Your task to perform on an android device: change the clock display to analog Image 0: 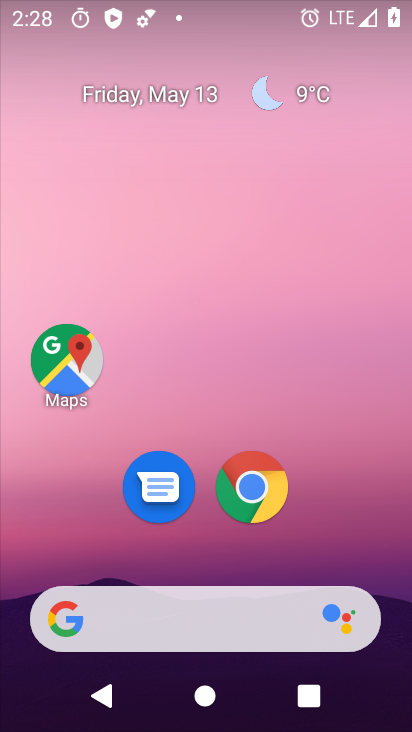
Step 0: drag from (218, 564) to (218, 154)
Your task to perform on an android device: change the clock display to analog Image 1: 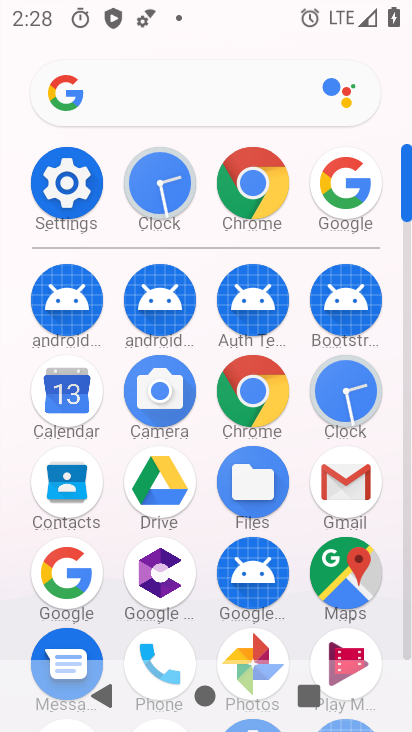
Step 1: click (349, 392)
Your task to perform on an android device: change the clock display to analog Image 2: 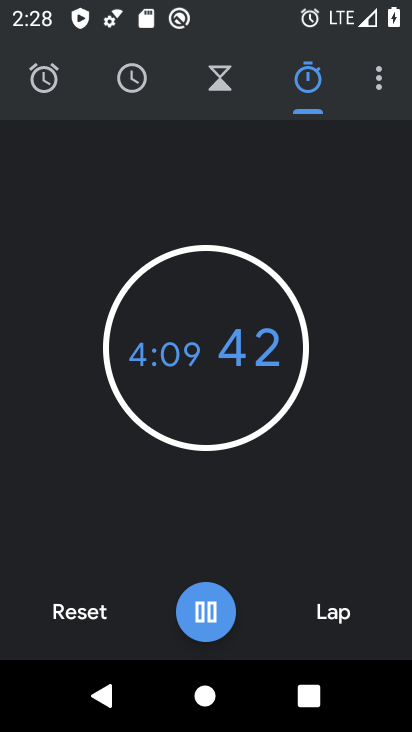
Step 2: click (366, 81)
Your task to perform on an android device: change the clock display to analog Image 3: 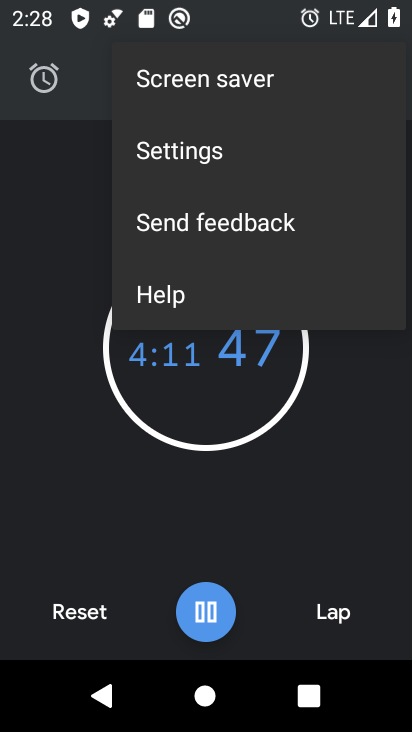
Step 3: click (188, 161)
Your task to perform on an android device: change the clock display to analog Image 4: 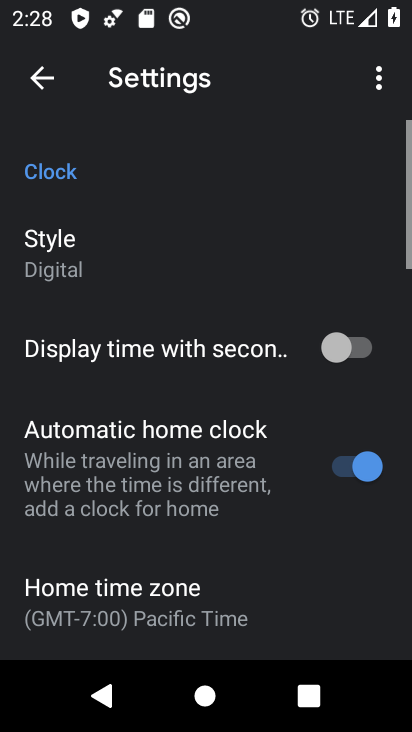
Step 4: click (97, 288)
Your task to perform on an android device: change the clock display to analog Image 5: 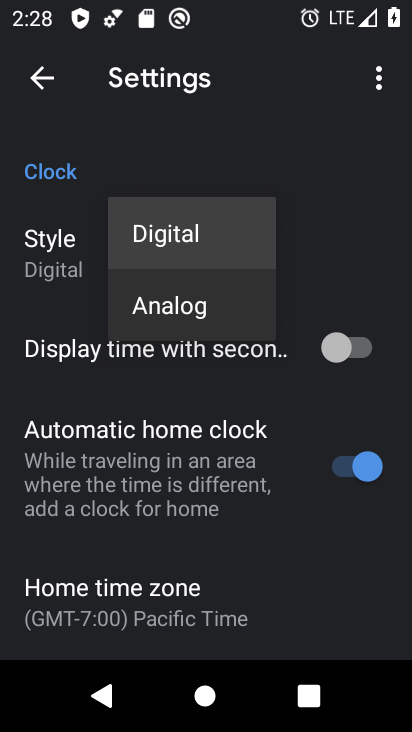
Step 5: click (156, 297)
Your task to perform on an android device: change the clock display to analog Image 6: 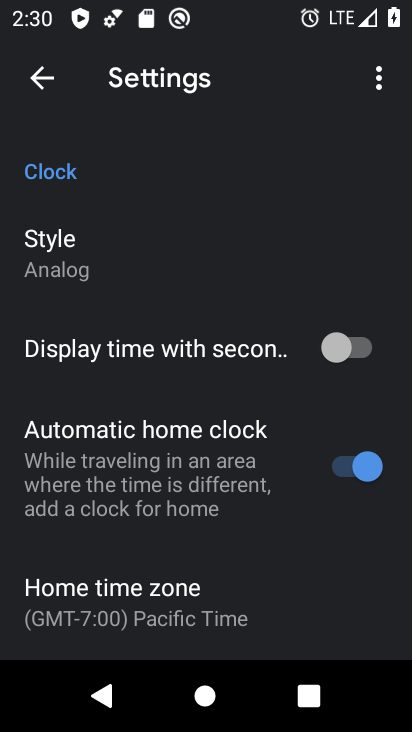
Step 6: task complete